Your task to perform on an android device: set the stopwatch Image 0: 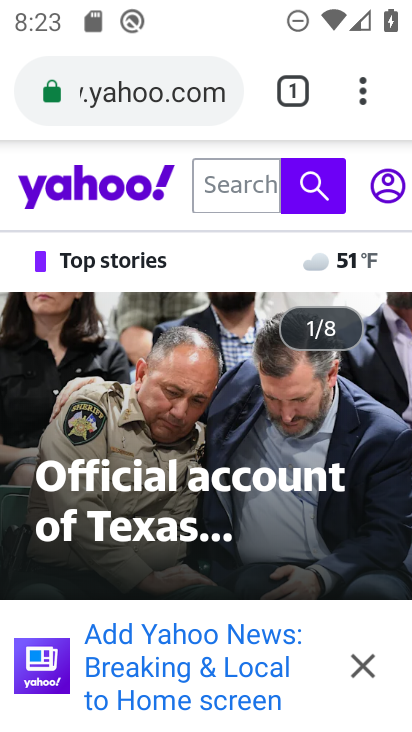
Step 0: press home button
Your task to perform on an android device: set the stopwatch Image 1: 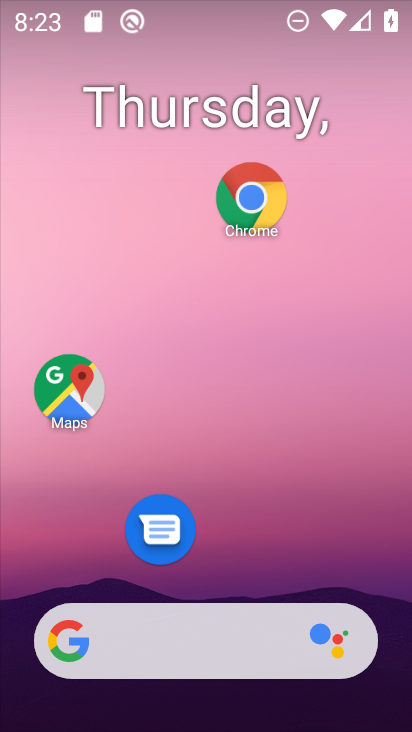
Step 1: drag from (214, 572) to (209, 65)
Your task to perform on an android device: set the stopwatch Image 2: 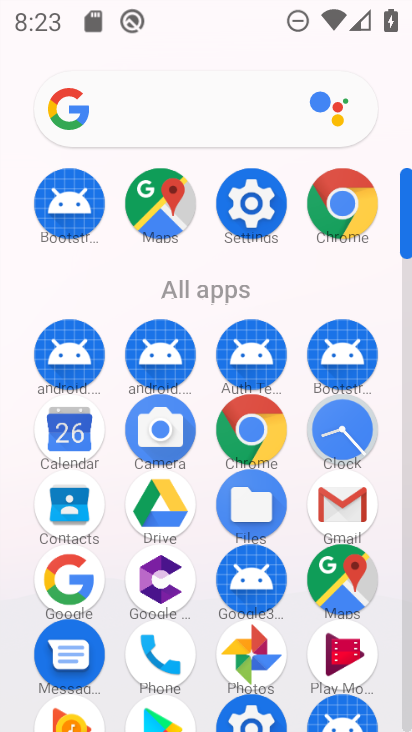
Step 2: click (261, 207)
Your task to perform on an android device: set the stopwatch Image 3: 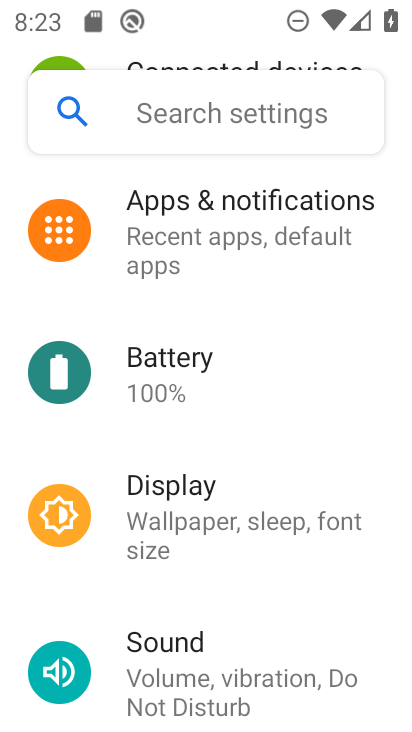
Step 3: press home button
Your task to perform on an android device: set the stopwatch Image 4: 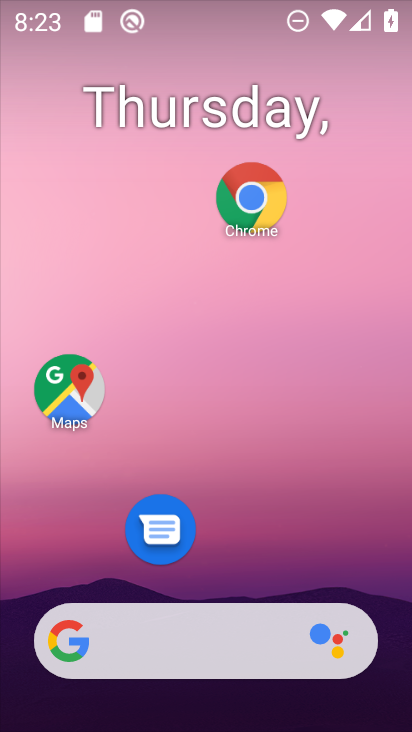
Step 4: drag from (250, 552) to (244, 190)
Your task to perform on an android device: set the stopwatch Image 5: 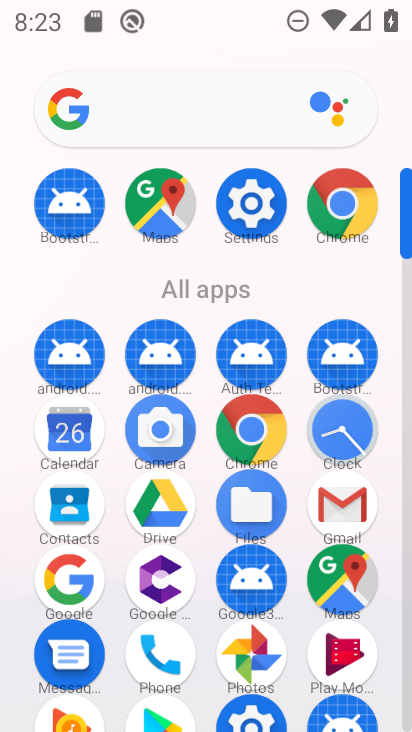
Step 5: click (352, 420)
Your task to perform on an android device: set the stopwatch Image 6: 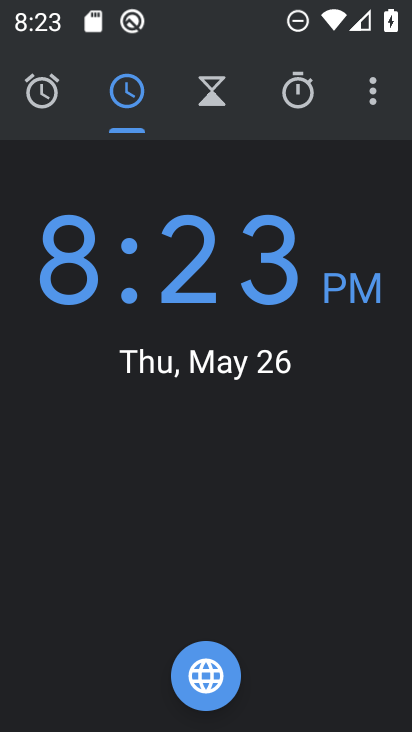
Step 6: click (293, 118)
Your task to perform on an android device: set the stopwatch Image 7: 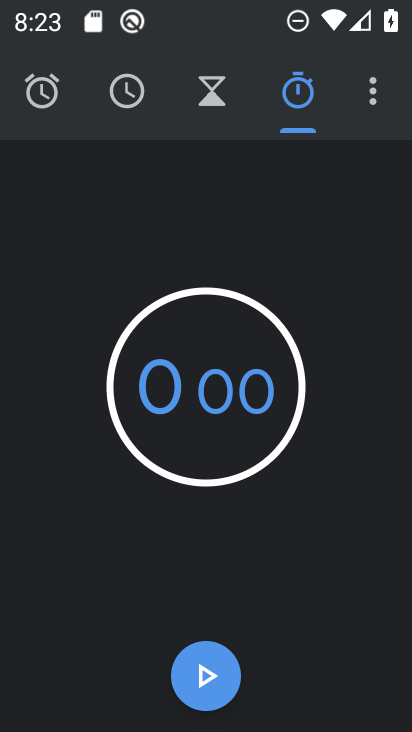
Step 7: click (199, 685)
Your task to perform on an android device: set the stopwatch Image 8: 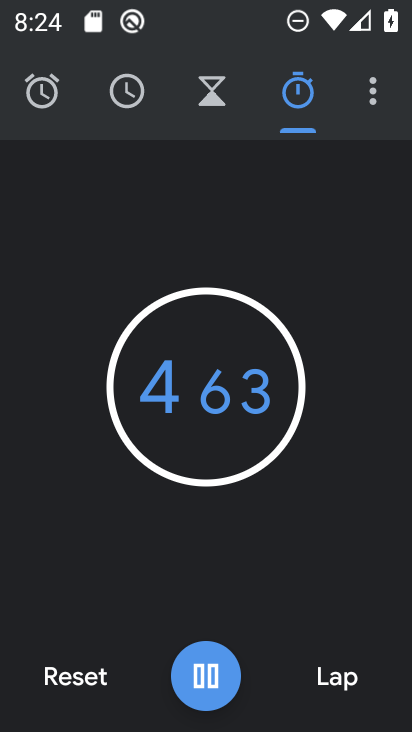
Step 8: click (198, 687)
Your task to perform on an android device: set the stopwatch Image 9: 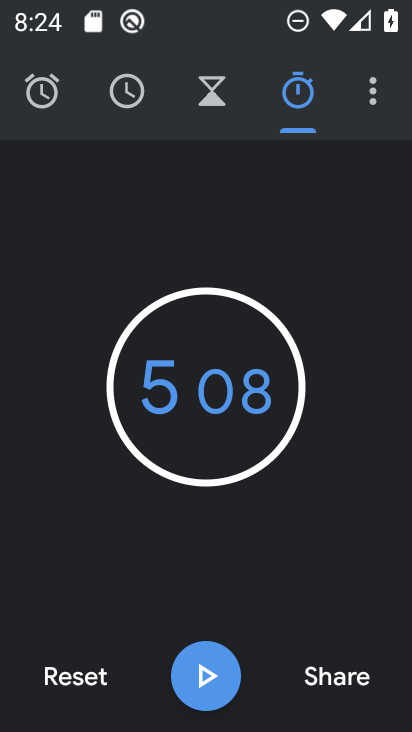
Step 9: task complete